Your task to perform on an android device: Open the calendar and show me this week's events Image 0: 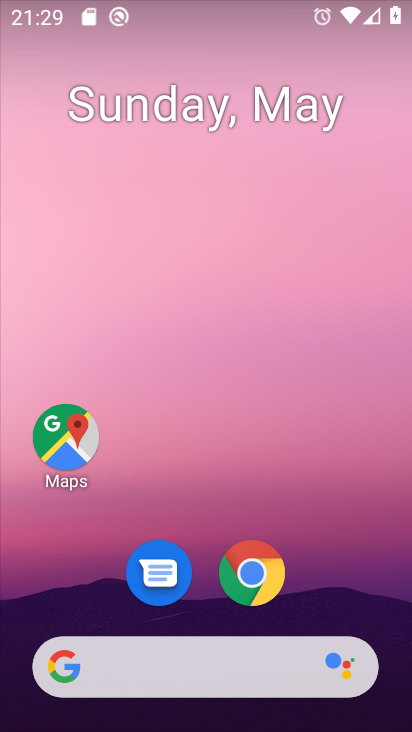
Step 0: drag from (281, 485) to (165, 1)
Your task to perform on an android device: Open the calendar and show me this week's events Image 1: 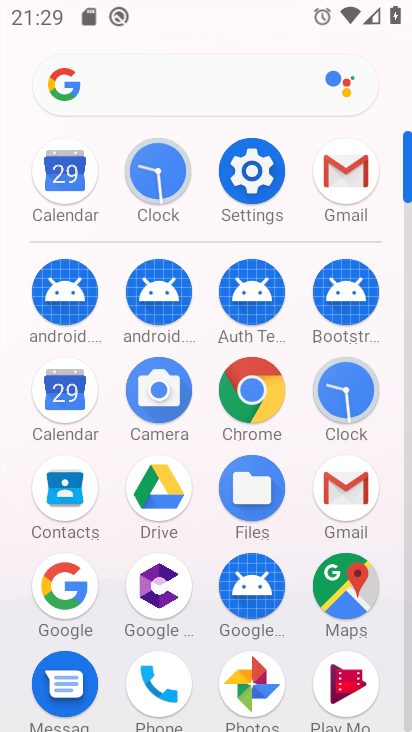
Step 1: click (69, 174)
Your task to perform on an android device: Open the calendar and show me this week's events Image 2: 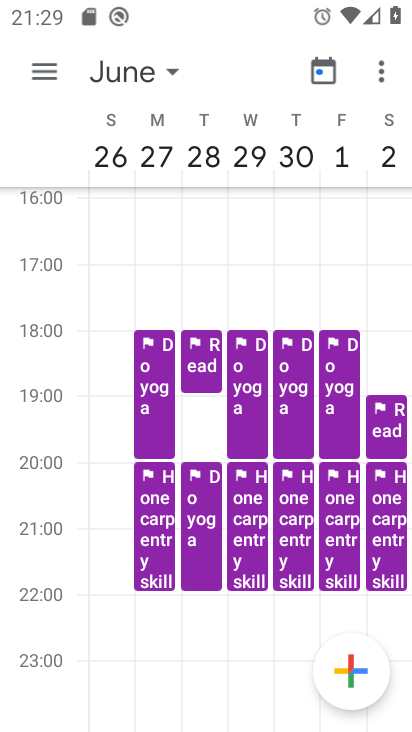
Step 2: task complete